Your task to perform on an android device: Go to network settings Image 0: 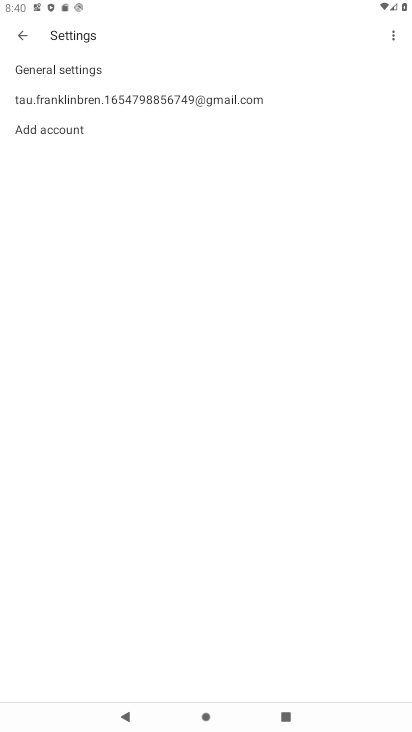
Step 0: press home button
Your task to perform on an android device: Go to network settings Image 1: 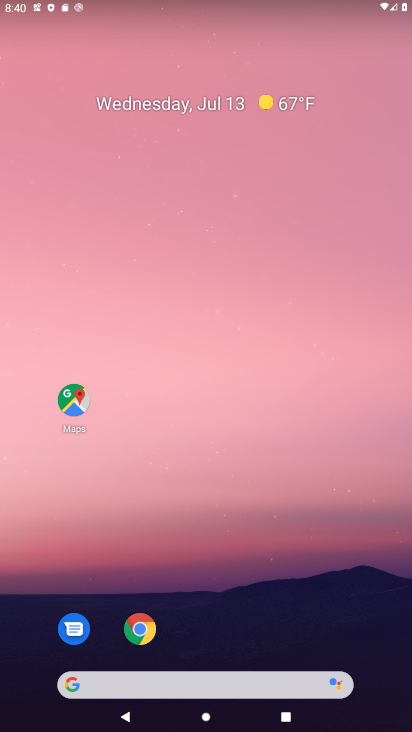
Step 1: drag from (232, 660) to (191, 0)
Your task to perform on an android device: Go to network settings Image 2: 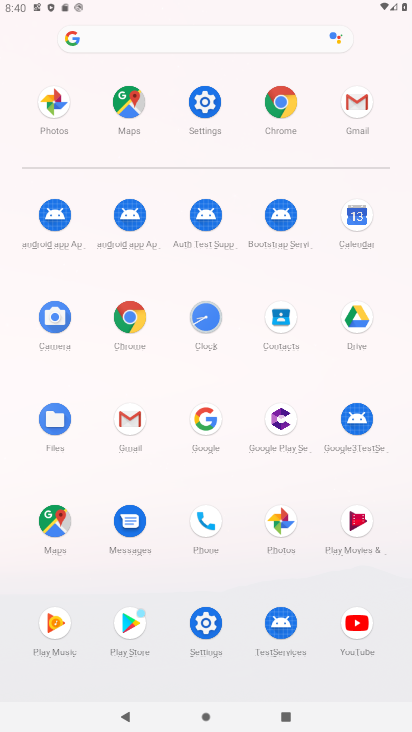
Step 2: click (209, 632)
Your task to perform on an android device: Go to network settings Image 3: 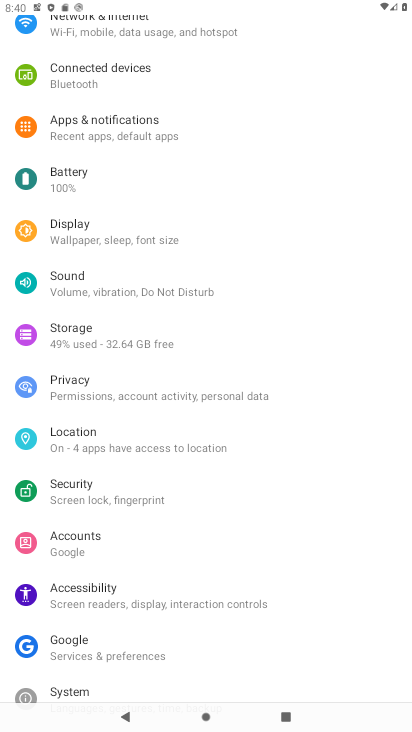
Step 3: drag from (116, 135) to (110, 572)
Your task to perform on an android device: Go to network settings Image 4: 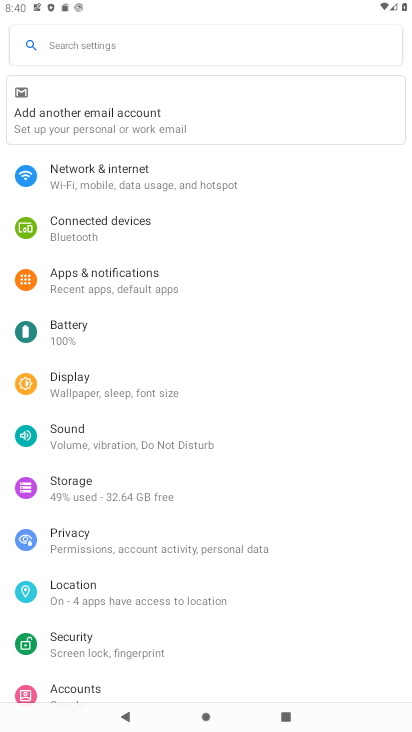
Step 4: click (135, 178)
Your task to perform on an android device: Go to network settings Image 5: 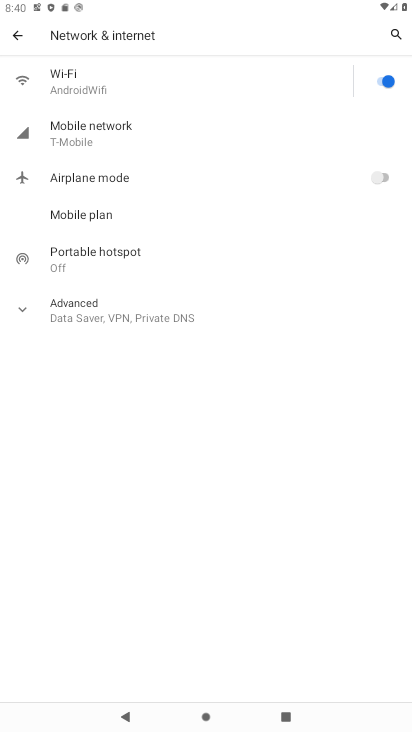
Step 5: task complete